Your task to perform on an android device: open app "Venmo" (install if not already installed), go to login, and select forgot password Image 0: 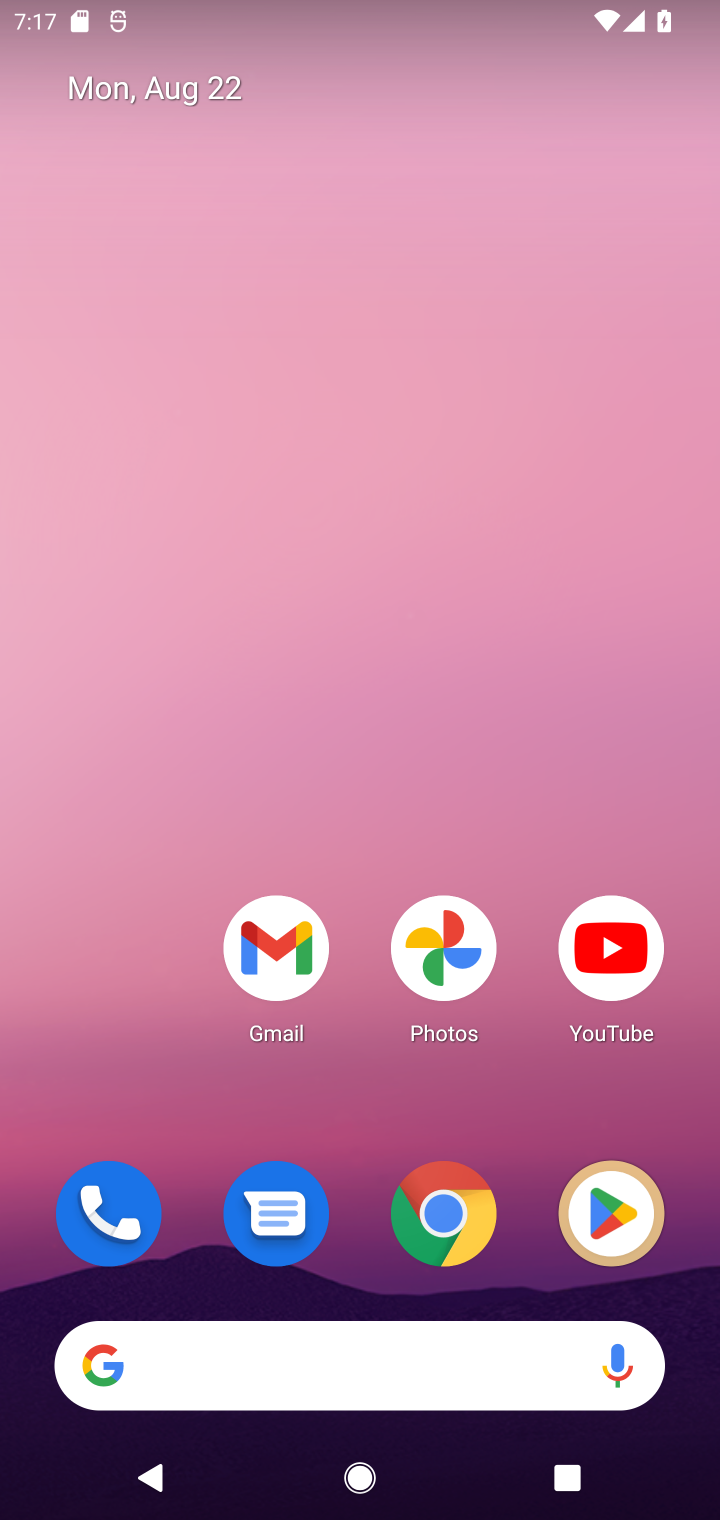
Step 0: press home button
Your task to perform on an android device: open app "Venmo" (install if not already installed), go to login, and select forgot password Image 1: 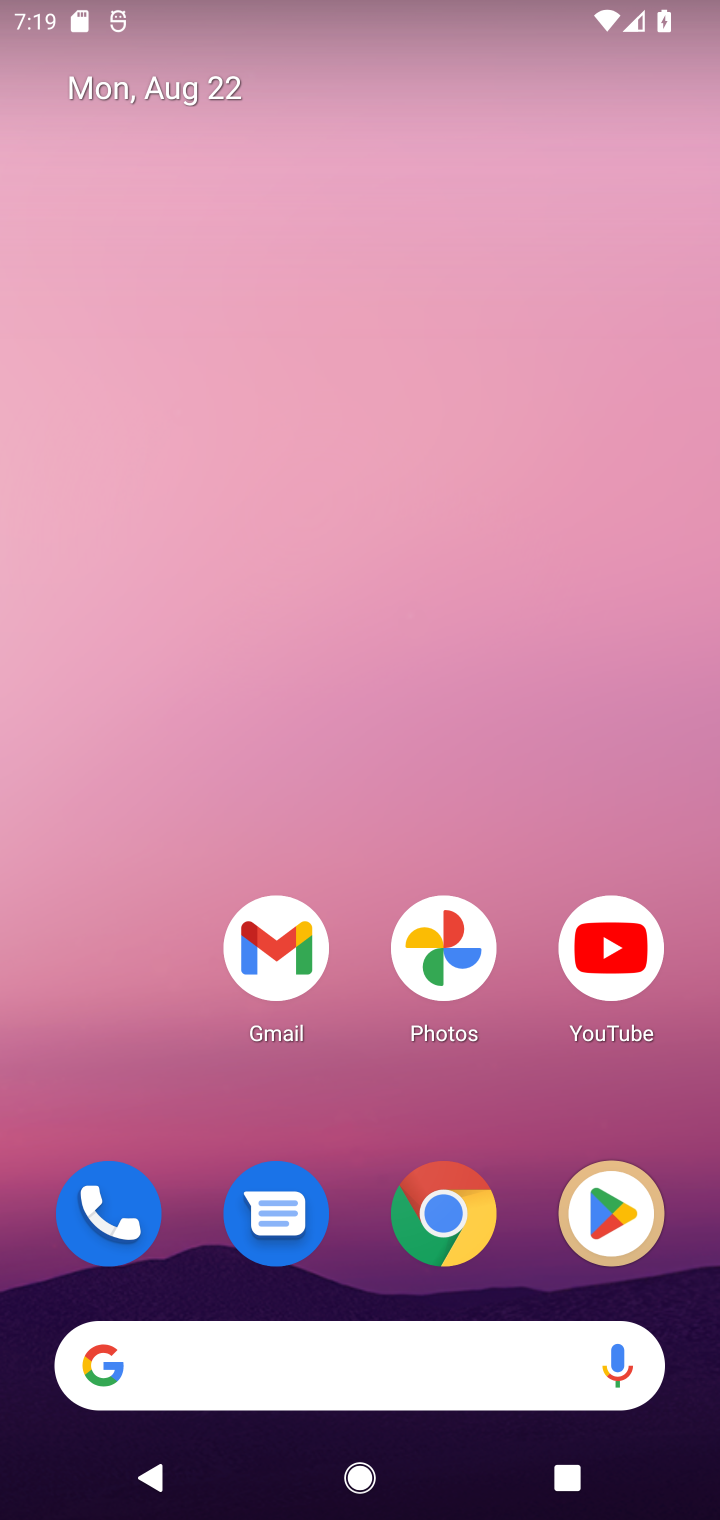
Step 1: click (606, 1196)
Your task to perform on an android device: open app "Venmo" (install if not already installed), go to login, and select forgot password Image 2: 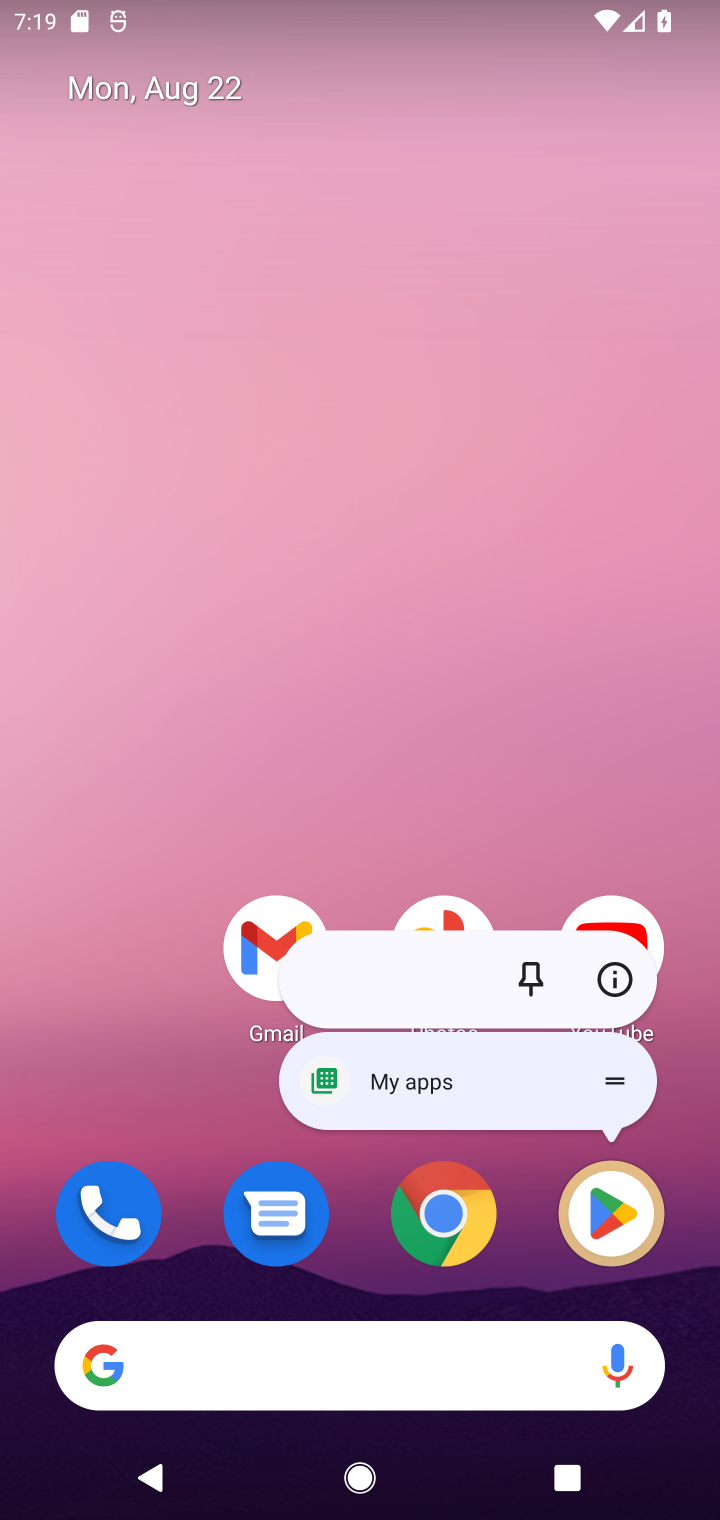
Step 2: click (637, 1187)
Your task to perform on an android device: open app "Venmo" (install if not already installed), go to login, and select forgot password Image 3: 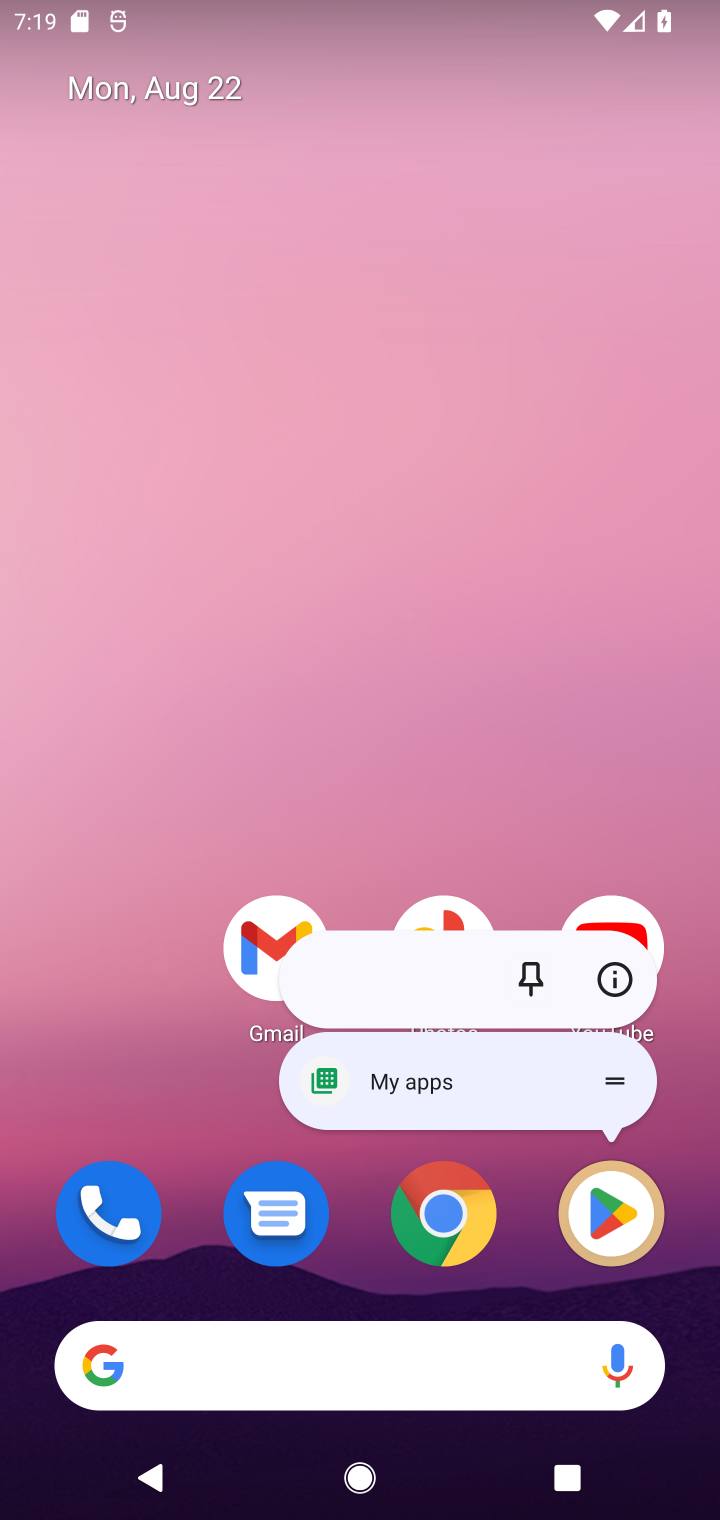
Step 3: click (603, 1199)
Your task to perform on an android device: open app "Venmo" (install if not already installed), go to login, and select forgot password Image 4: 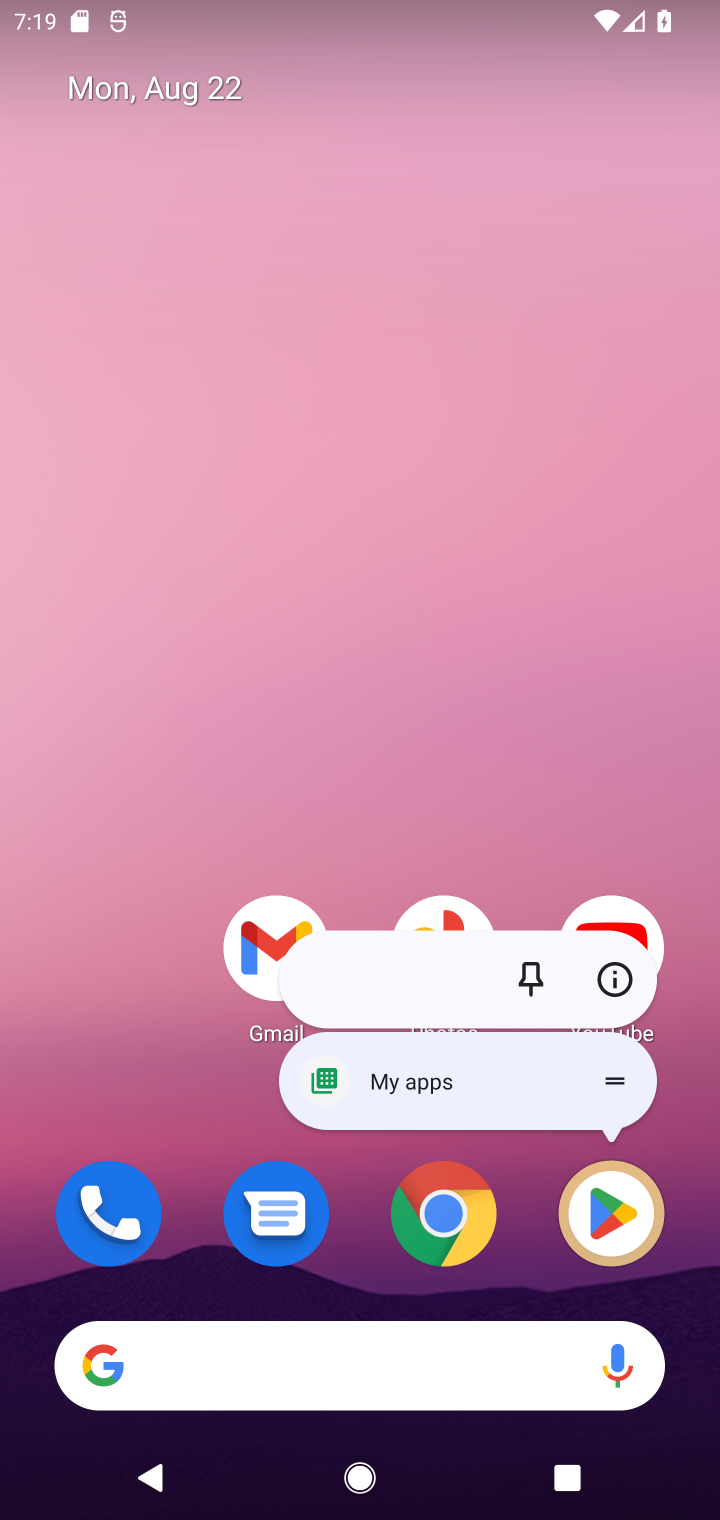
Step 4: click (609, 1200)
Your task to perform on an android device: open app "Venmo" (install if not already installed), go to login, and select forgot password Image 5: 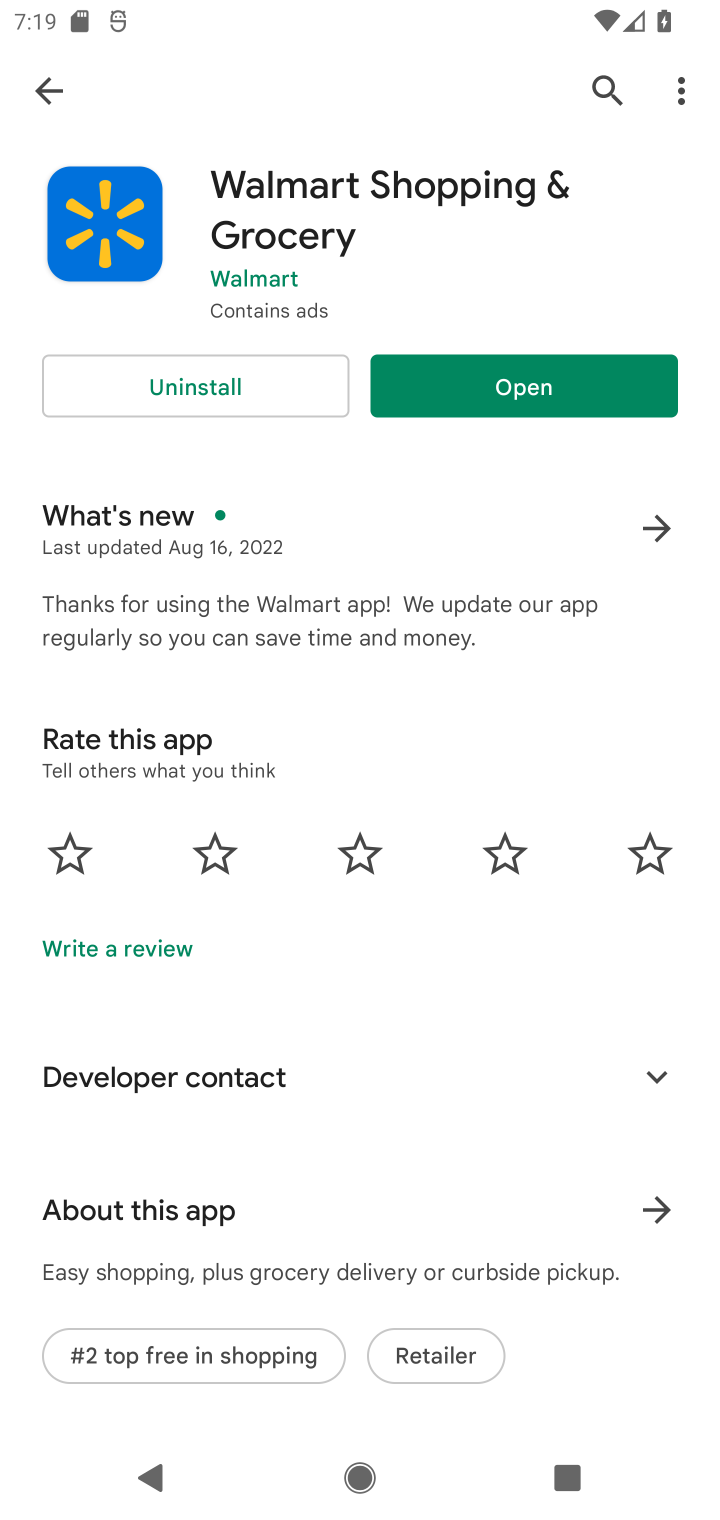
Step 5: click (604, 82)
Your task to perform on an android device: open app "Venmo" (install if not already installed), go to login, and select forgot password Image 6: 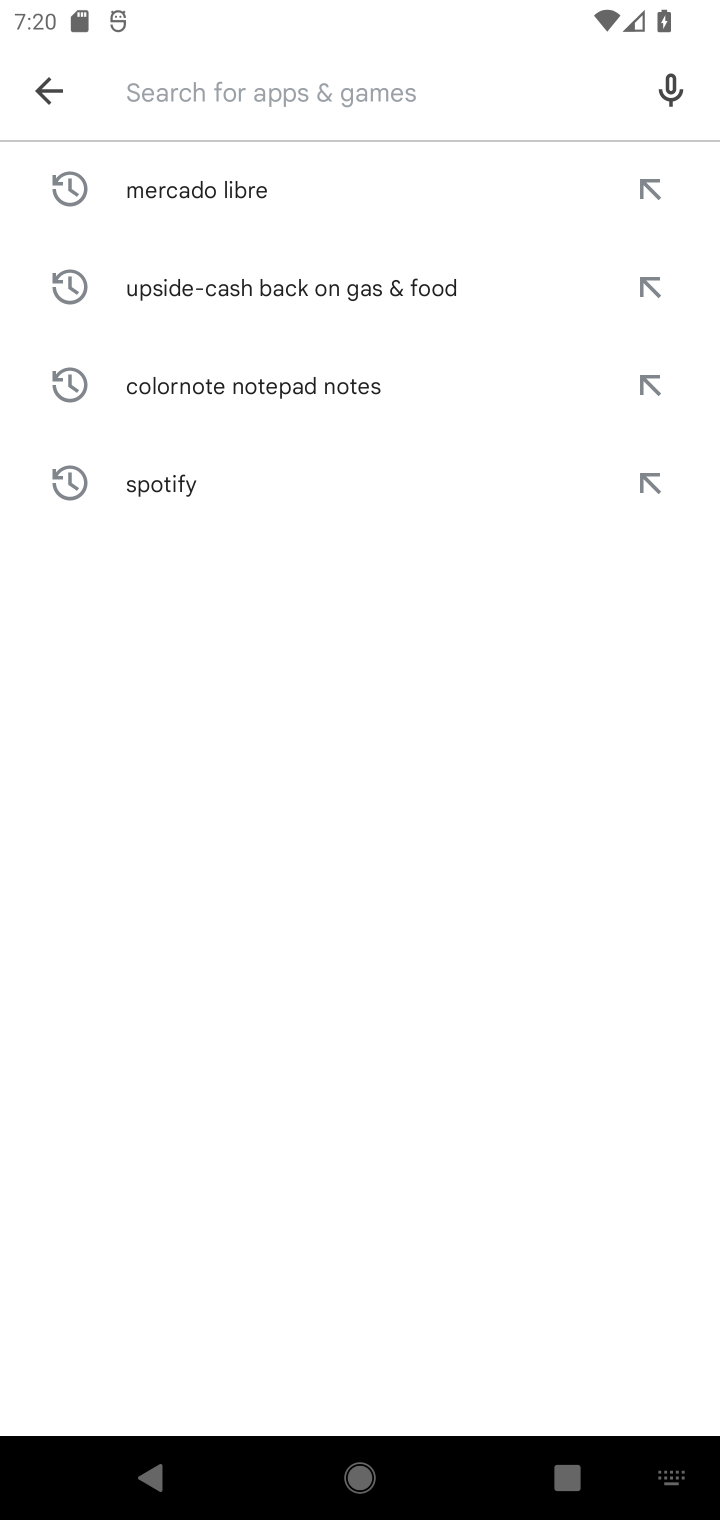
Step 6: type "Venmo"
Your task to perform on an android device: open app "Venmo" (install if not already installed), go to login, and select forgot password Image 7: 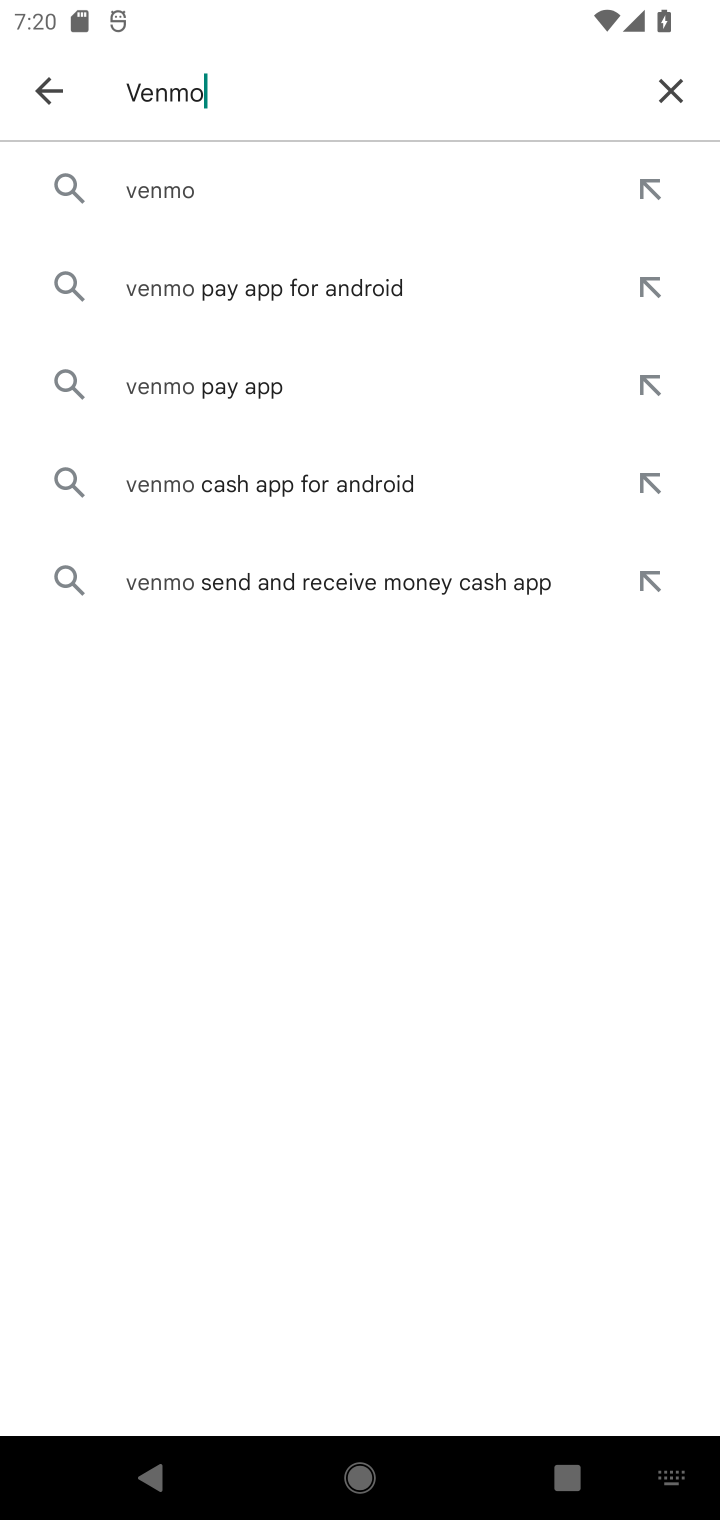
Step 7: click (208, 188)
Your task to perform on an android device: open app "Venmo" (install if not already installed), go to login, and select forgot password Image 8: 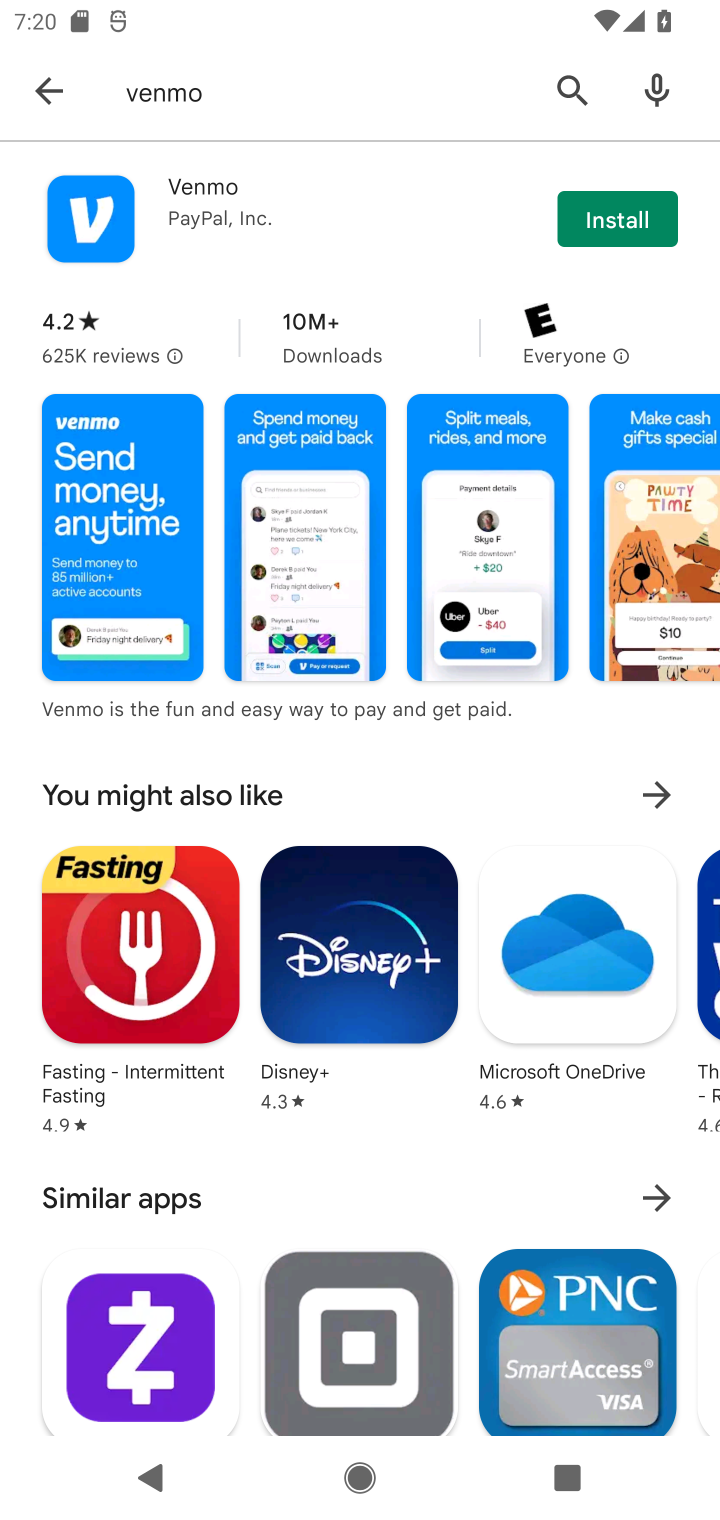
Step 8: click (623, 219)
Your task to perform on an android device: open app "Venmo" (install if not already installed), go to login, and select forgot password Image 9: 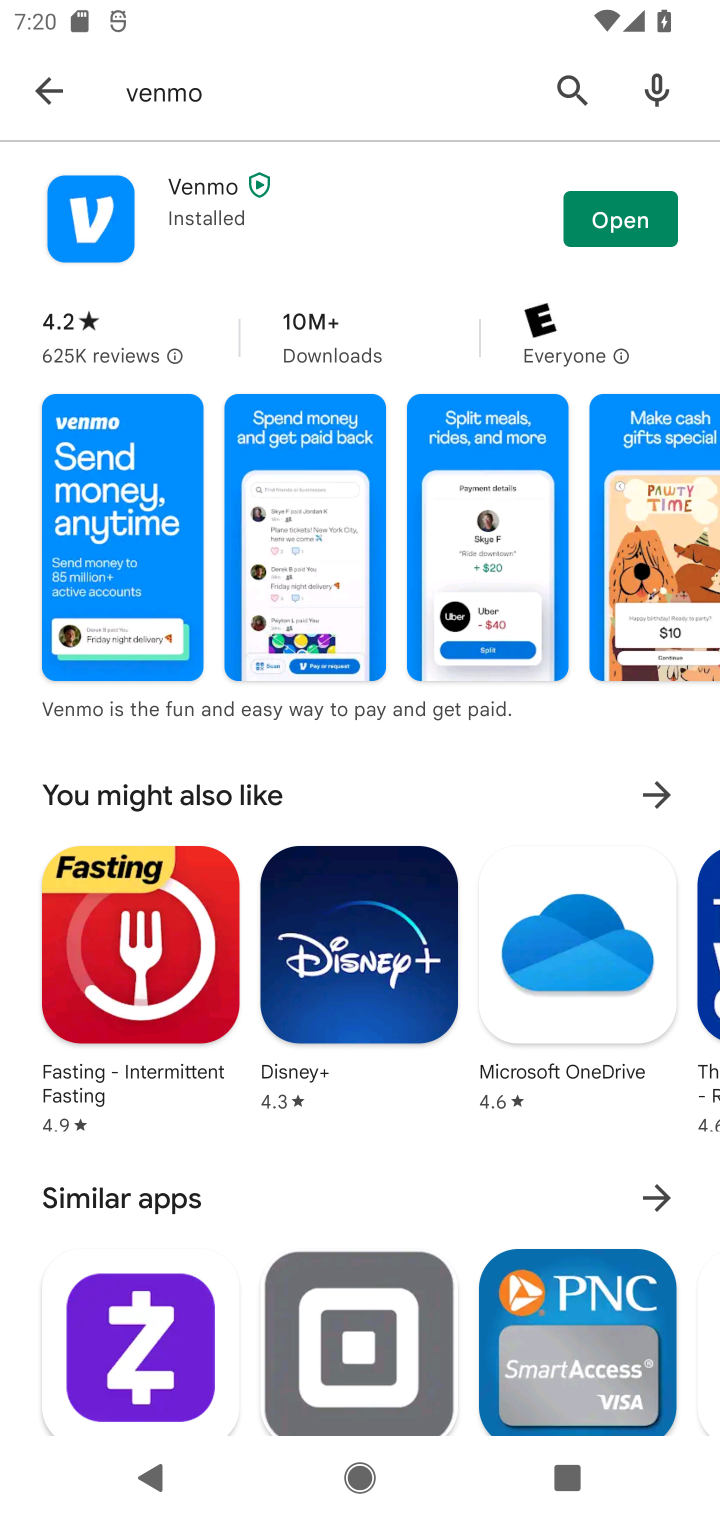
Step 9: click (618, 222)
Your task to perform on an android device: open app "Venmo" (install if not already installed), go to login, and select forgot password Image 10: 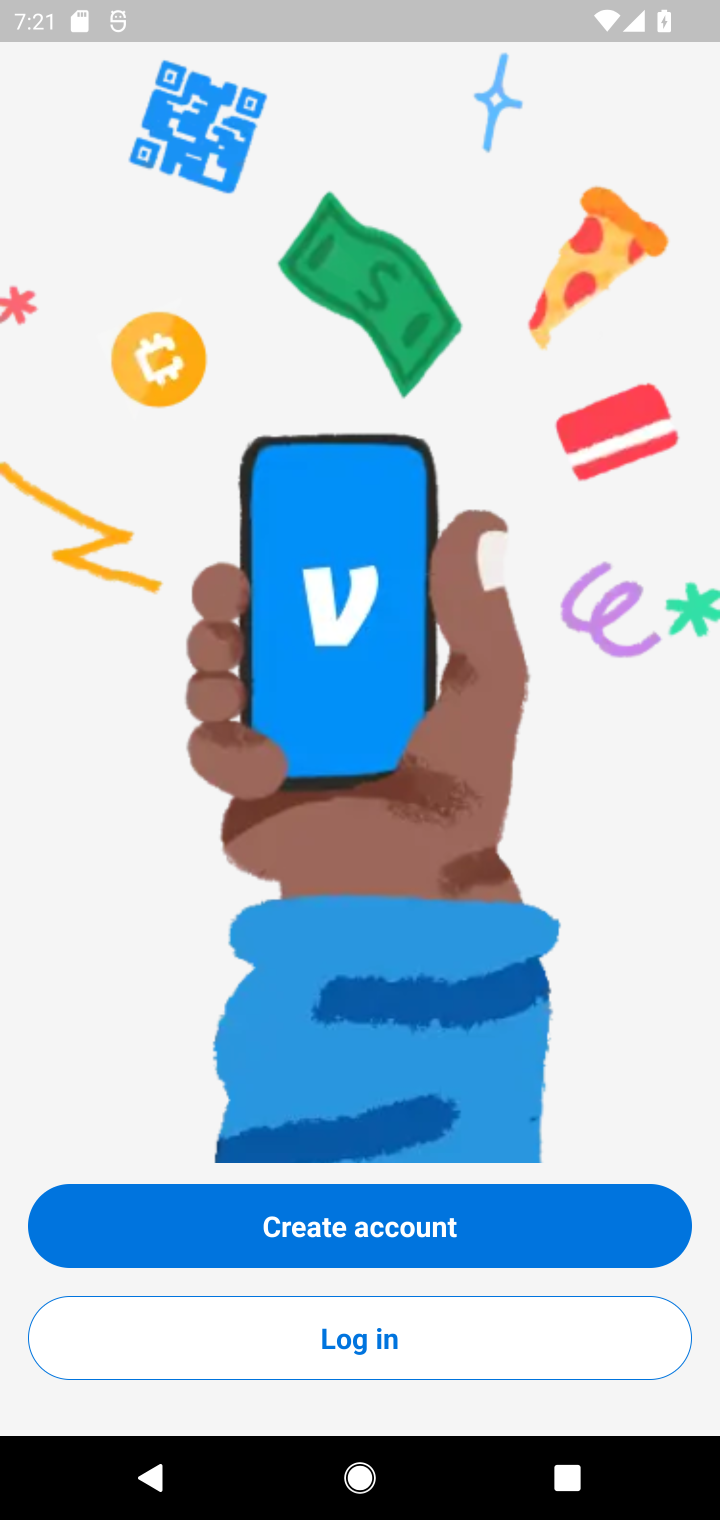
Step 10: click (366, 1337)
Your task to perform on an android device: open app "Venmo" (install if not already installed), go to login, and select forgot password Image 11: 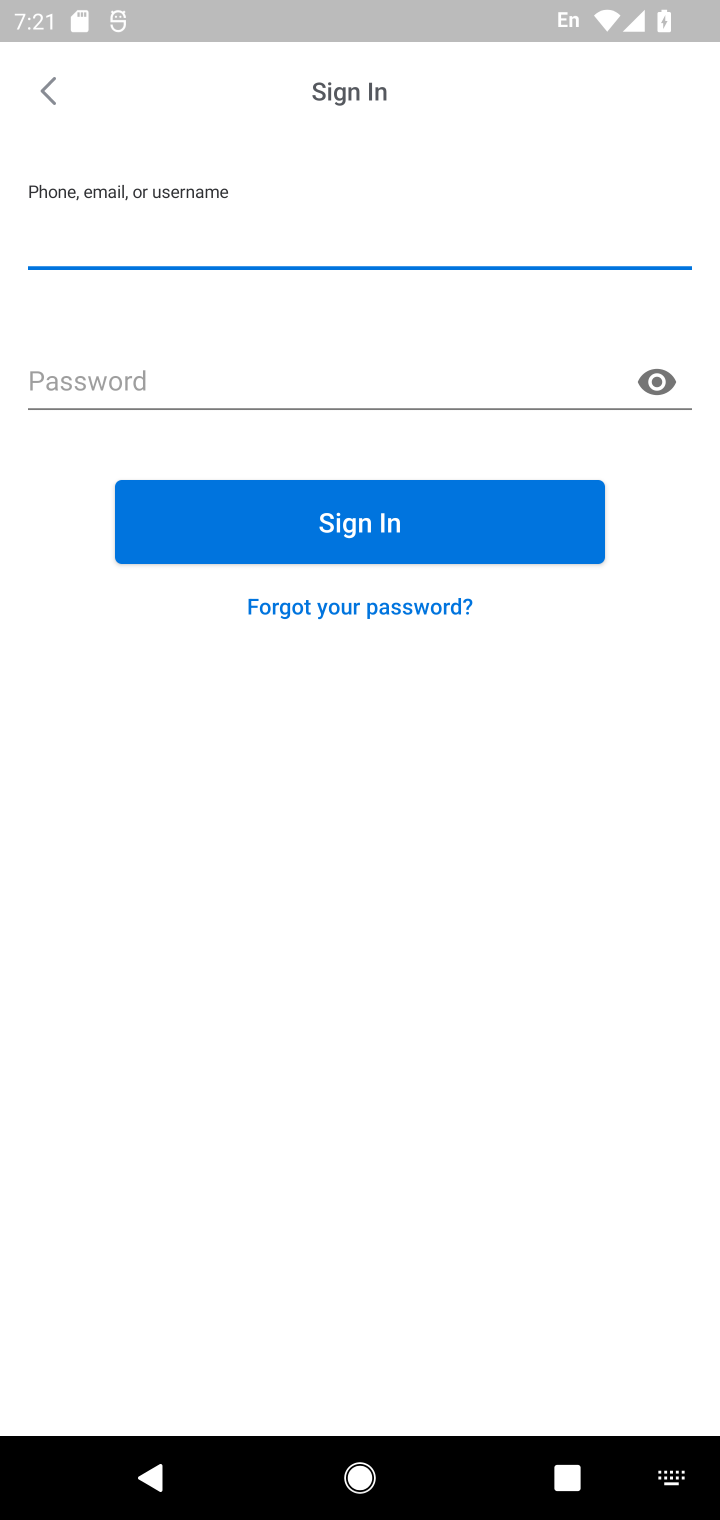
Step 11: click (350, 601)
Your task to perform on an android device: open app "Venmo" (install if not already installed), go to login, and select forgot password Image 12: 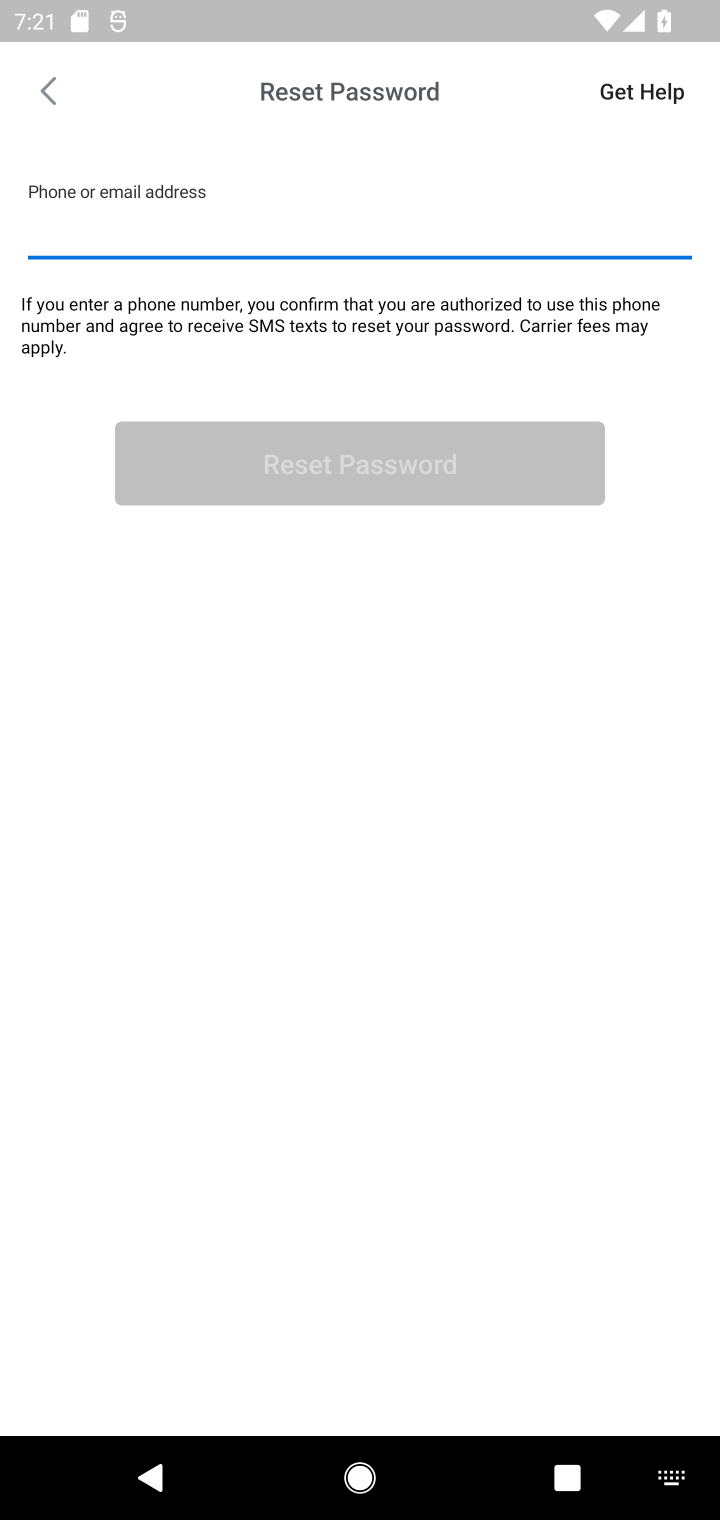
Step 12: task complete